Your task to perform on an android device: find which apps use the phone's location Image 0: 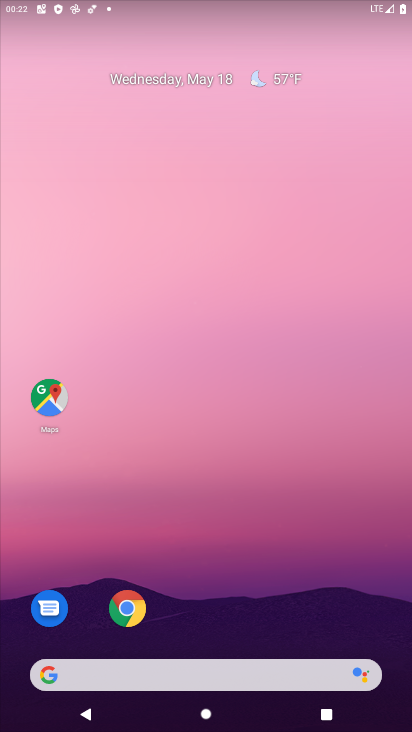
Step 0: drag from (221, 556) to (97, 118)
Your task to perform on an android device: find which apps use the phone's location Image 1: 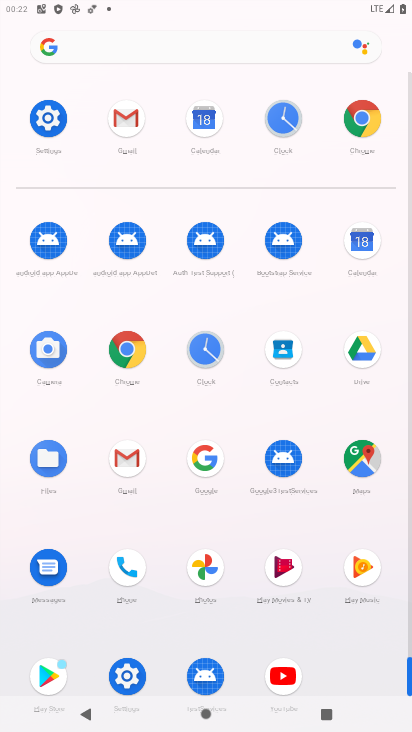
Step 1: click (46, 122)
Your task to perform on an android device: find which apps use the phone's location Image 2: 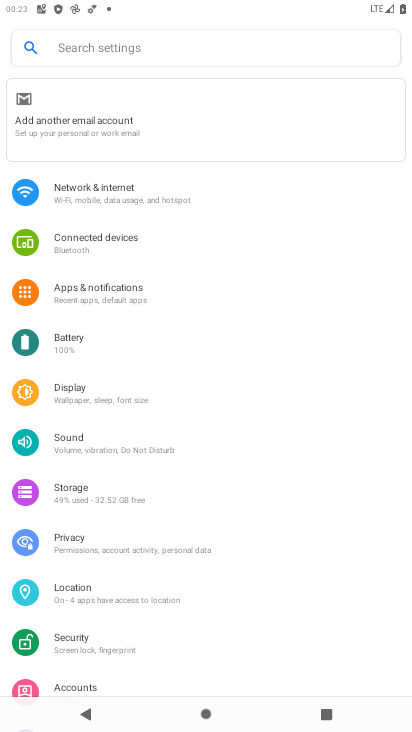
Step 2: click (66, 585)
Your task to perform on an android device: find which apps use the phone's location Image 3: 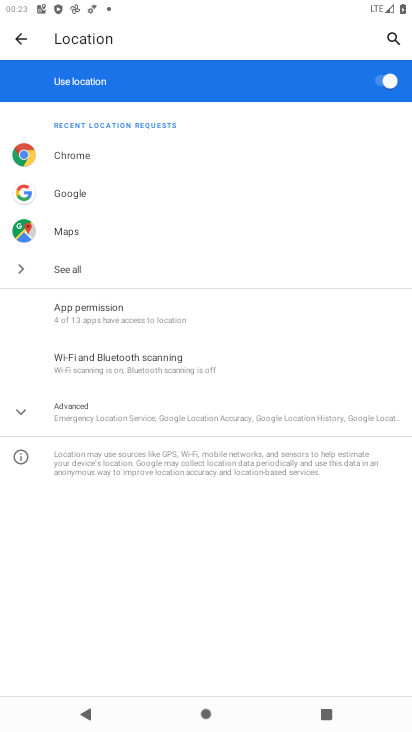
Step 3: click (59, 263)
Your task to perform on an android device: find which apps use the phone's location Image 4: 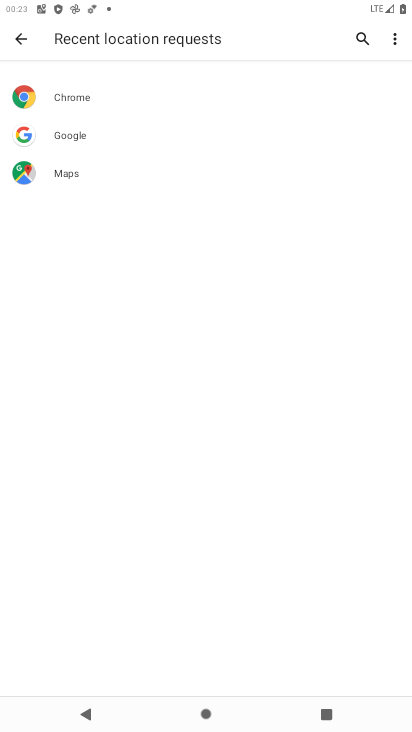
Step 4: task complete